Your task to perform on an android device: Open Chrome and go to settings Image 0: 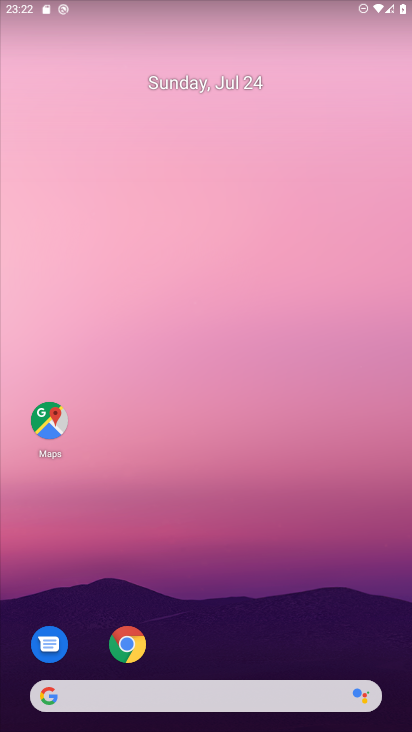
Step 0: click (126, 646)
Your task to perform on an android device: Open Chrome and go to settings Image 1: 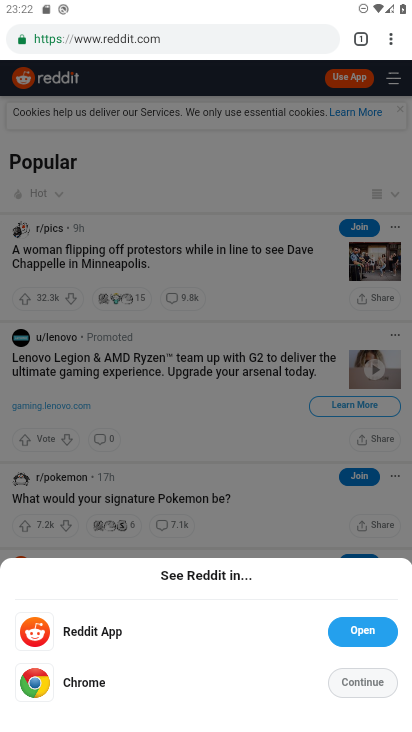
Step 1: click (390, 41)
Your task to perform on an android device: Open Chrome and go to settings Image 2: 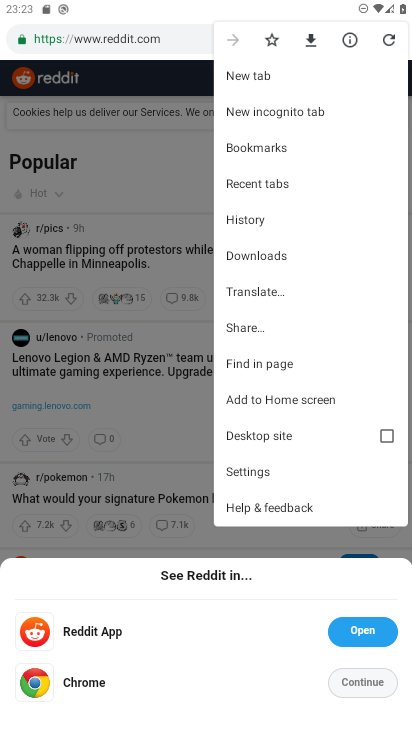
Step 2: click (243, 470)
Your task to perform on an android device: Open Chrome and go to settings Image 3: 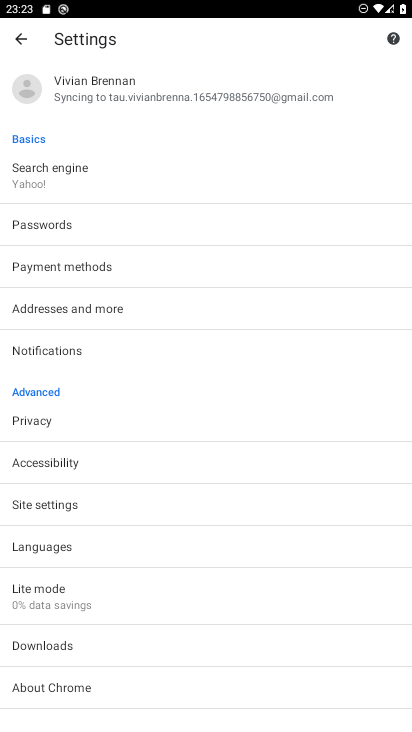
Step 3: task complete